Your task to perform on an android device: Open privacy settings Image 0: 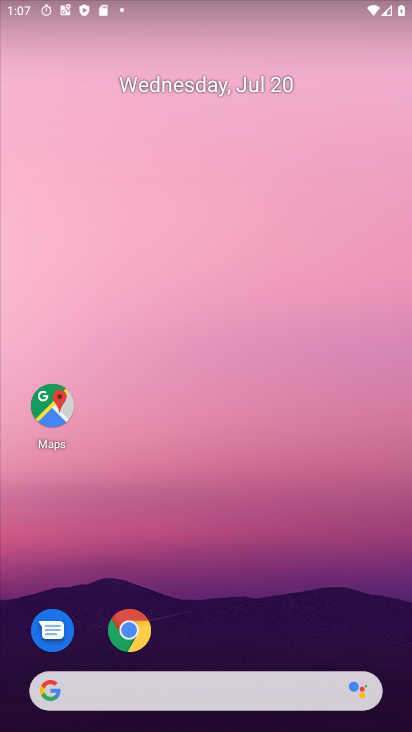
Step 0: drag from (260, 612) to (252, 108)
Your task to perform on an android device: Open privacy settings Image 1: 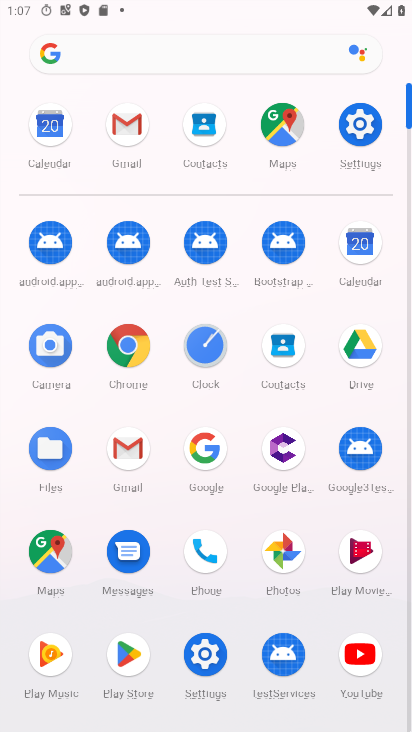
Step 1: click (365, 108)
Your task to perform on an android device: Open privacy settings Image 2: 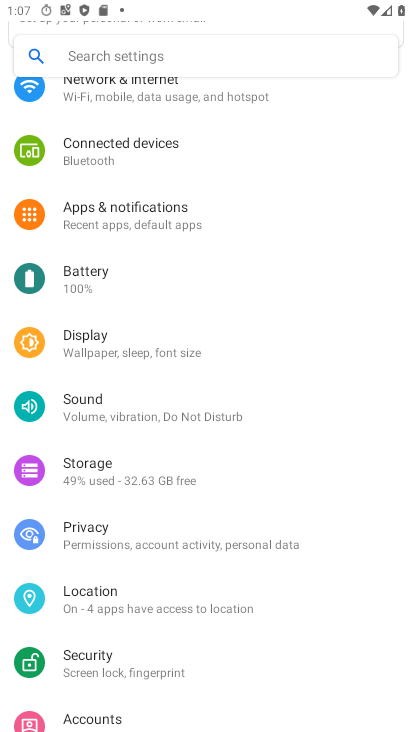
Step 2: drag from (165, 497) to (103, 102)
Your task to perform on an android device: Open privacy settings Image 3: 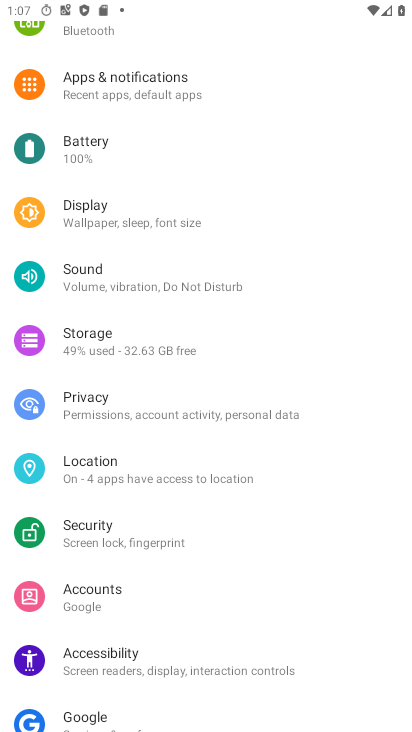
Step 3: click (146, 401)
Your task to perform on an android device: Open privacy settings Image 4: 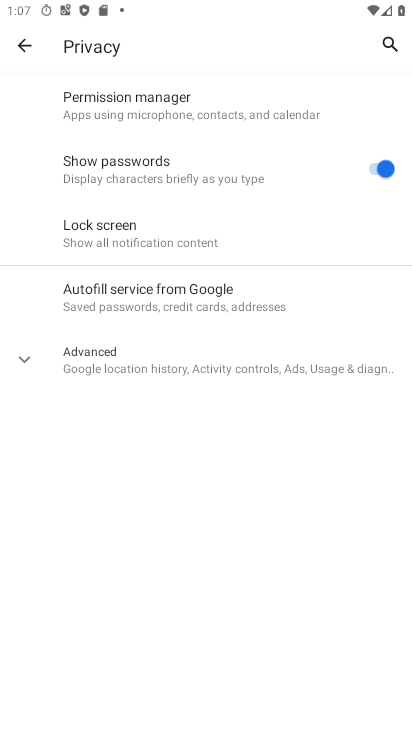
Step 4: task complete